Your task to perform on an android device: change the clock display to digital Image 0: 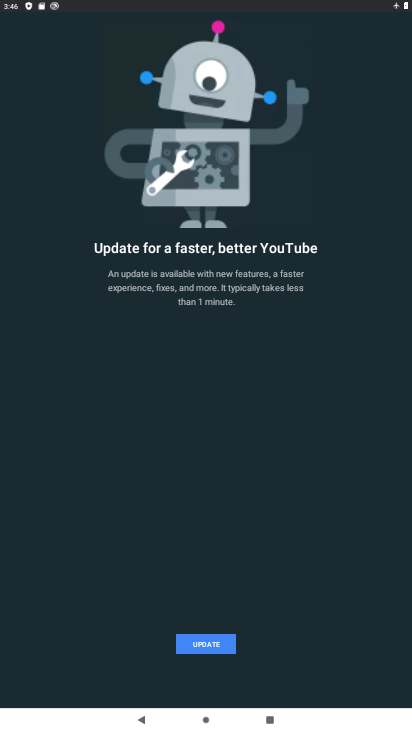
Step 0: press home button
Your task to perform on an android device: change the clock display to digital Image 1: 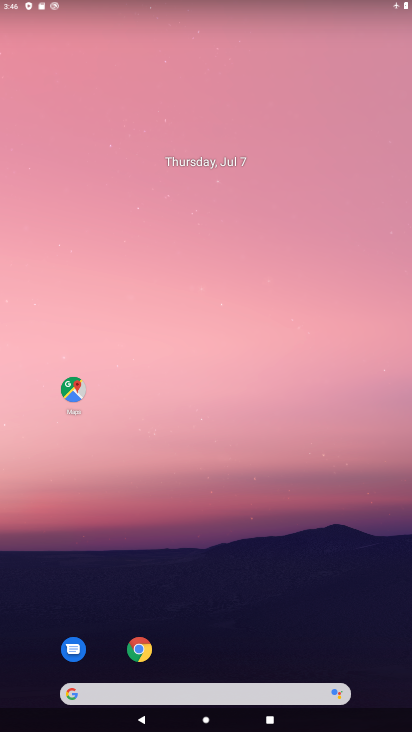
Step 1: drag from (300, 676) to (315, 246)
Your task to perform on an android device: change the clock display to digital Image 2: 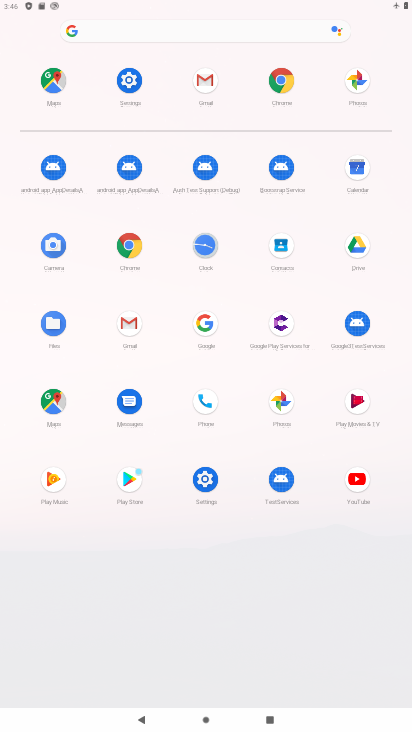
Step 2: click (199, 245)
Your task to perform on an android device: change the clock display to digital Image 3: 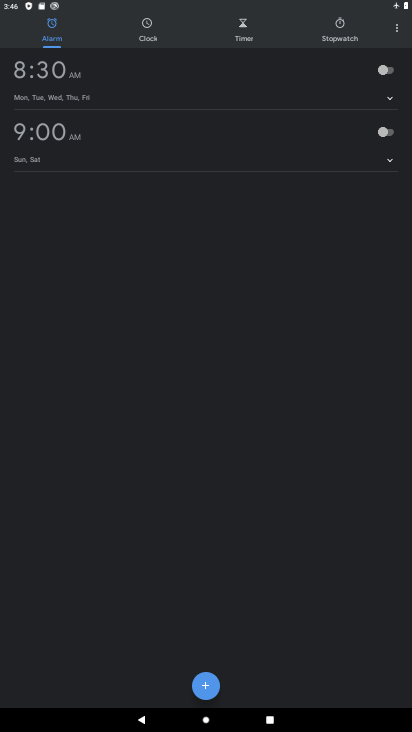
Step 3: press home button
Your task to perform on an android device: change the clock display to digital Image 4: 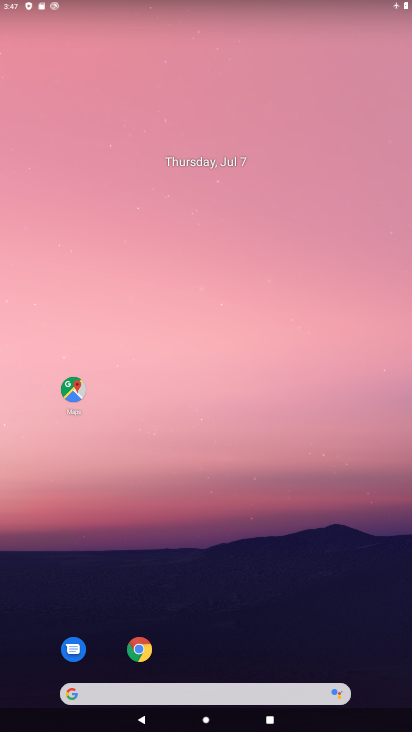
Step 4: drag from (290, 651) to (336, 302)
Your task to perform on an android device: change the clock display to digital Image 5: 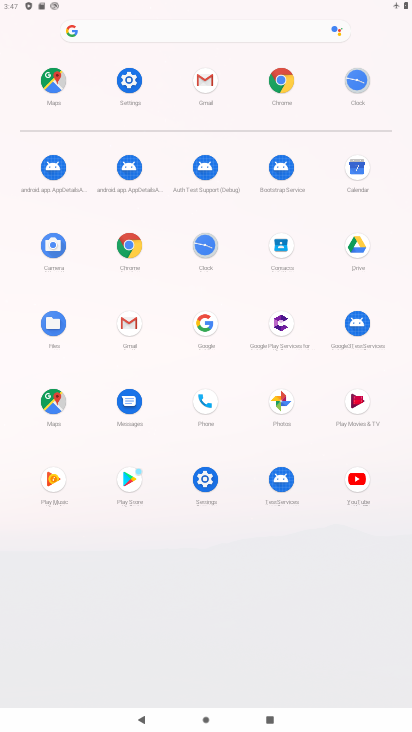
Step 5: click (213, 241)
Your task to perform on an android device: change the clock display to digital Image 6: 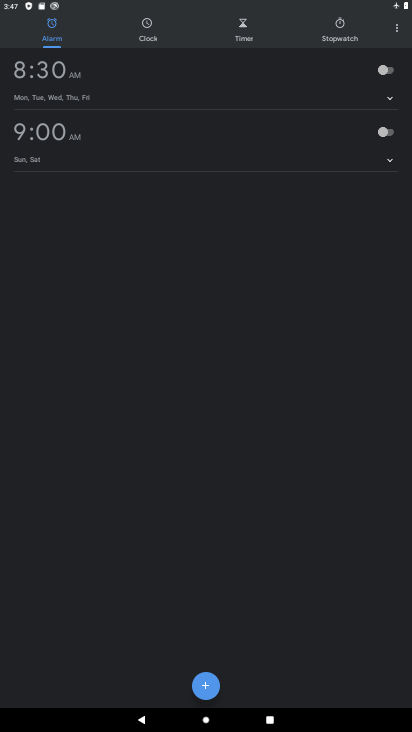
Step 6: click (397, 33)
Your task to perform on an android device: change the clock display to digital Image 7: 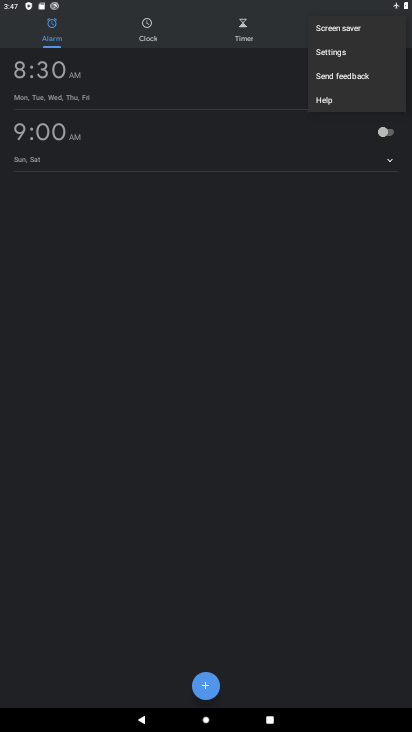
Step 7: click (338, 56)
Your task to perform on an android device: change the clock display to digital Image 8: 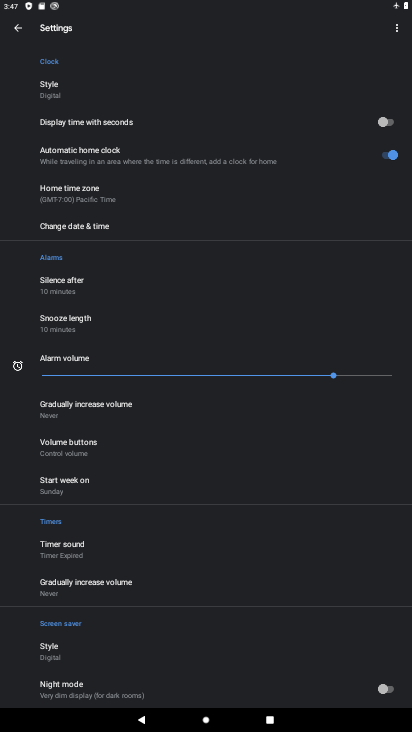
Step 8: click (61, 89)
Your task to perform on an android device: change the clock display to digital Image 9: 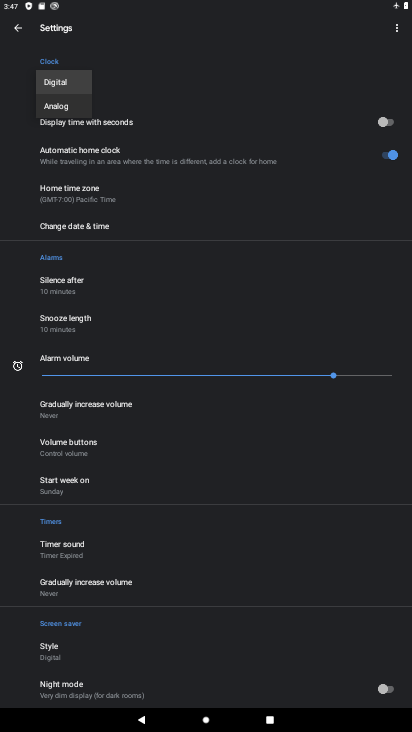
Step 9: click (62, 109)
Your task to perform on an android device: change the clock display to digital Image 10: 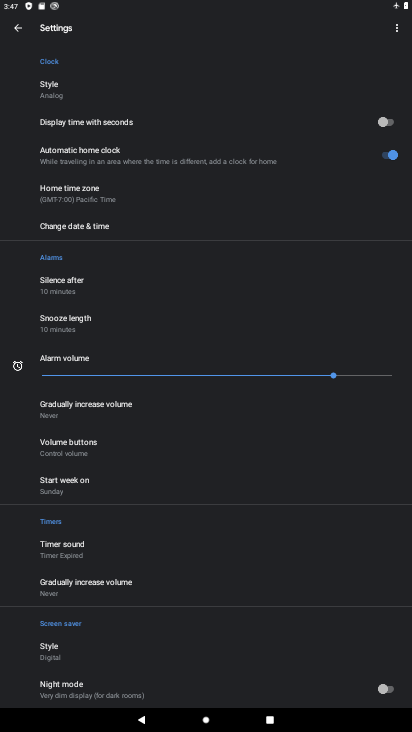
Step 10: task complete